Your task to perform on an android device: change alarm snooze length Image 0: 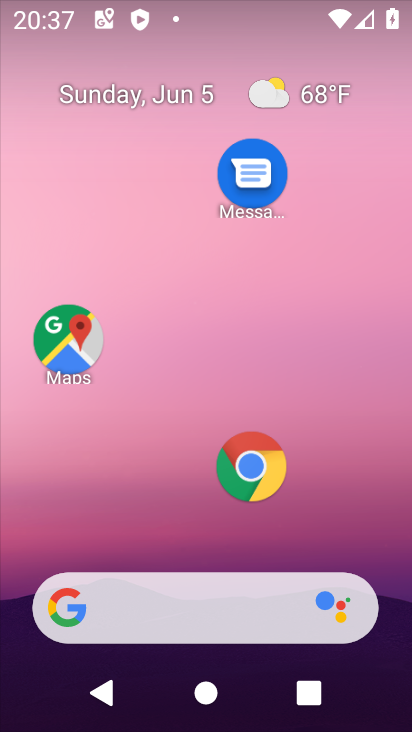
Step 0: drag from (280, 364) to (189, 19)
Your task to perform on an android device: change alarm snooze length Image 1: 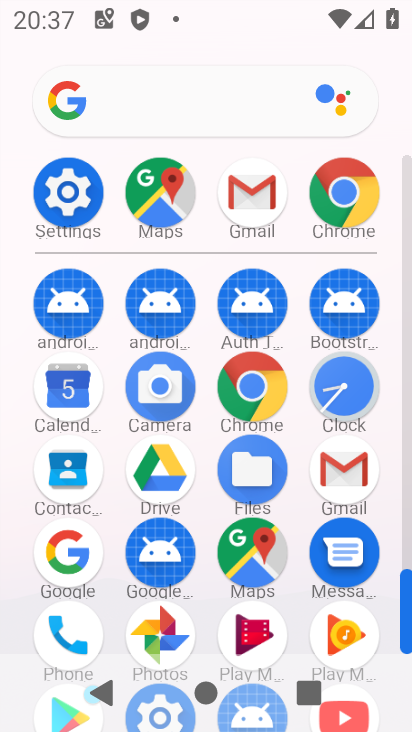
Step 1: click (339, 392)
Your task to perform on an android device: change alarm snooze length Image 2: 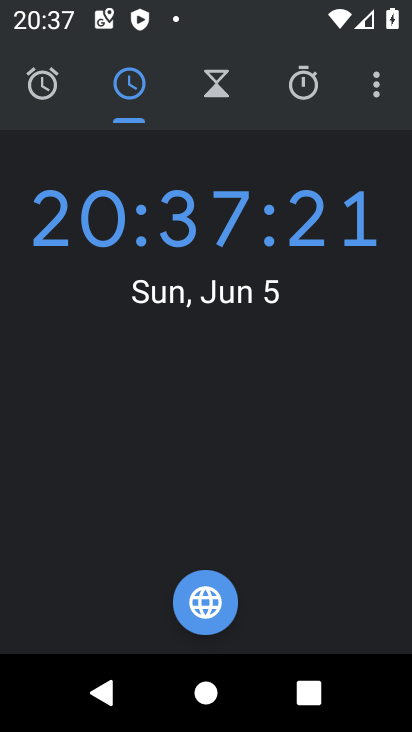
Step 2: click (363, 101)
Your task to perform on an android device: change alarm snooze length Image 3: 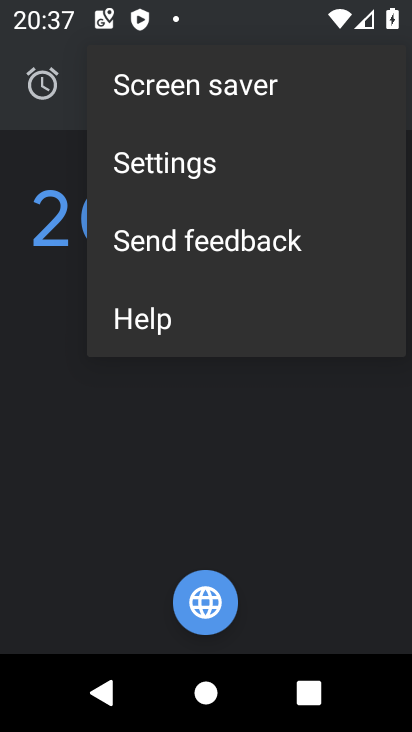
Step 3: click (244, 178)
Your task to perform on an android device: change alarm snooze length Image 4: 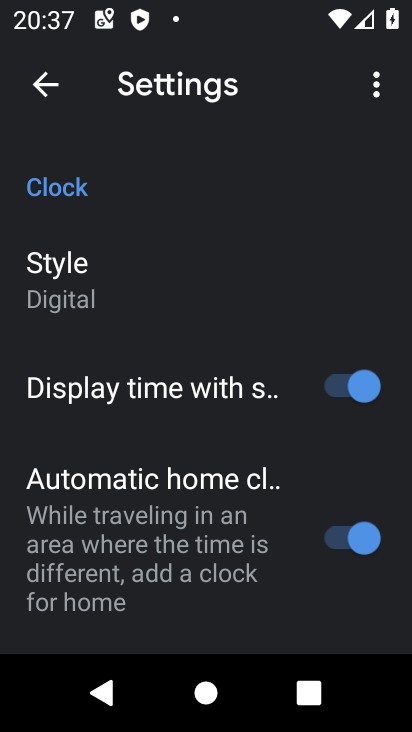
Step 4: drag from (249, 505) to (362, 17)
Your task to perform on an android device: change alarm snooze length Image 5: 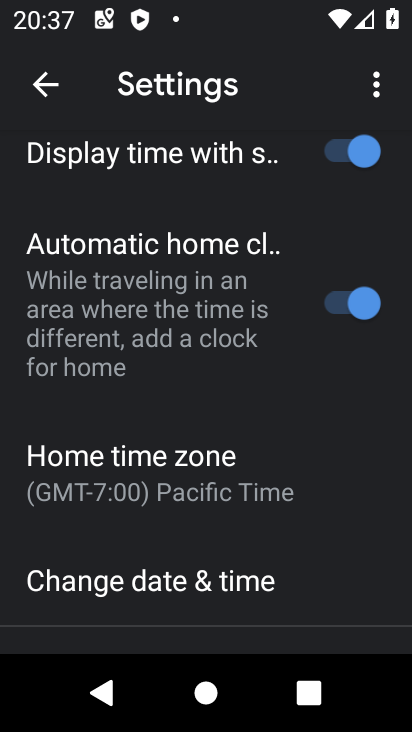
Step 5: drag from (213, 494) to (286, 128)
Your task to perform on an android device: change alarm snooze length Image 6: 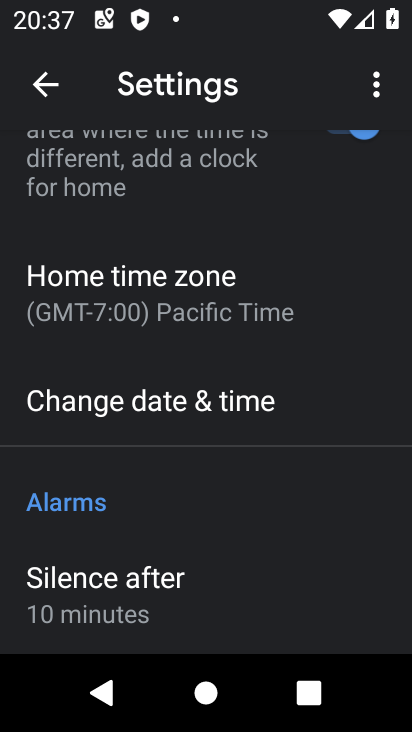
Step 6: drag from (214, 523) to (279, 101)
Your task to perform on an android device: change alarm snooze length Image 7: 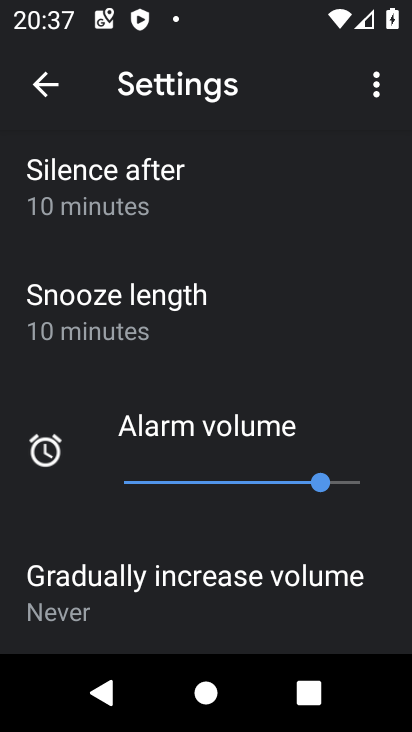
Step 7: click (157, 307)
Your task to perform on an android device: change alarm snooze length Image 8: 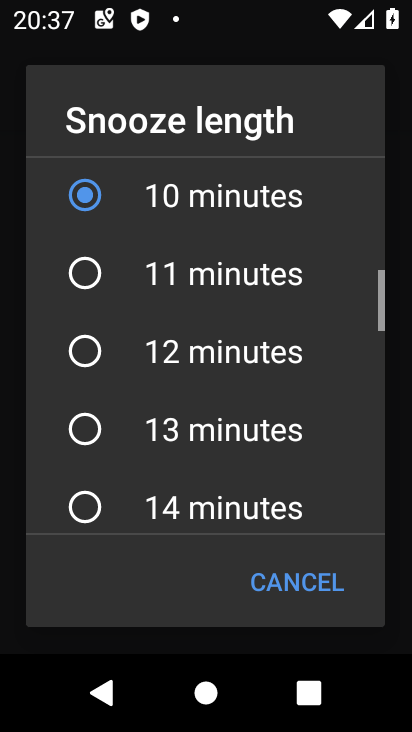
Step 8: task complete